Your task to perform on an android device: open sync settings in chrome Image 0: 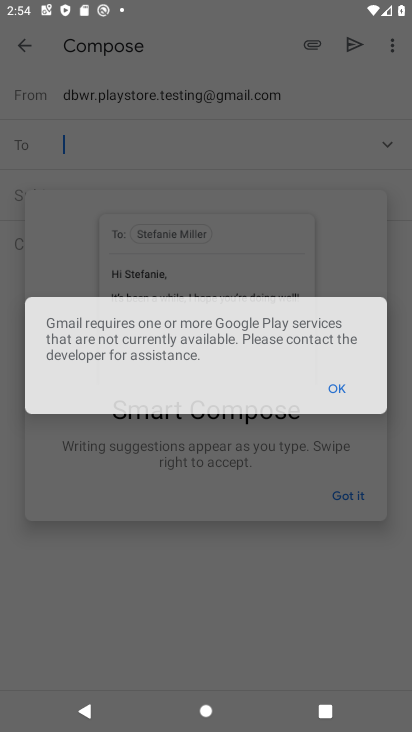
Step 0: drag from (275, 601) to (277, 281)
Your task to perform on an android device: open sync settings in chrome Image 1: 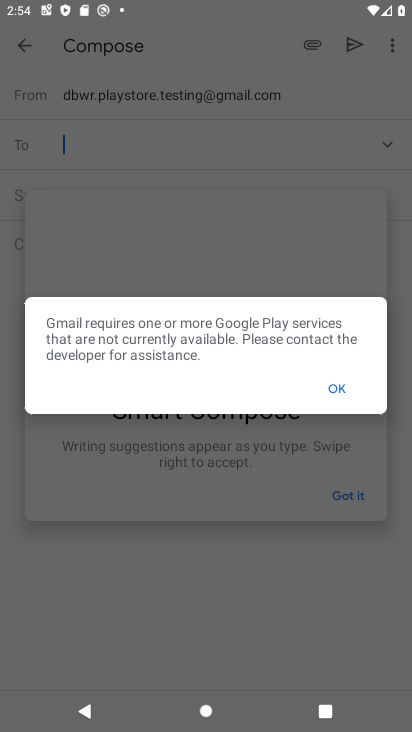
Step 1: press home button
Your task to perform on an android device: open sync settings in chrome Image 2: 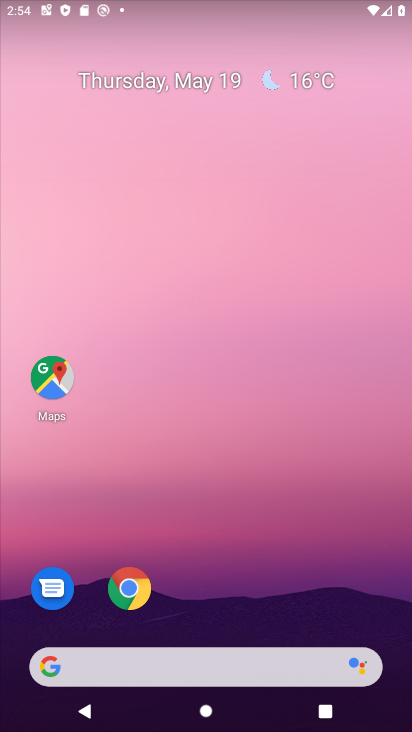
Step 2: click (132, 594)
Your task to perform on an android device: open sync settings in chrome Image 3: 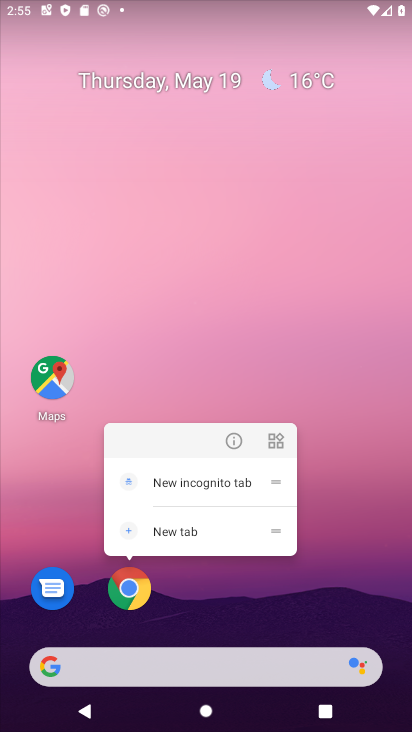
Step 3: click (134, 585)
Your task to perform on an android device: open sync settings in chrome Image 4: 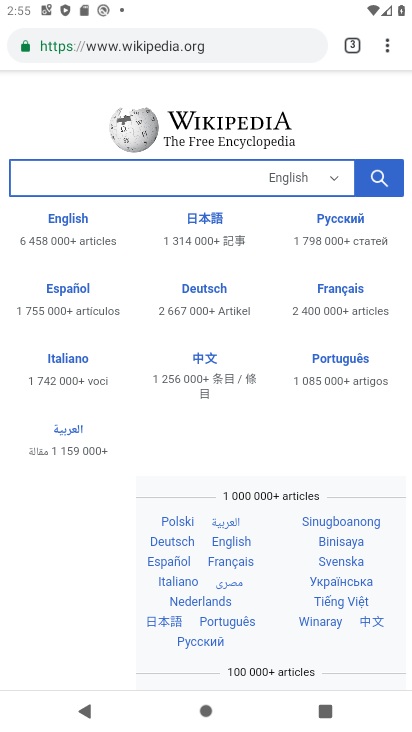
Step 4: drag from (383, 46) to (239, 554)
Your task to perform on an android device: open sync settings in chrome Image 5: 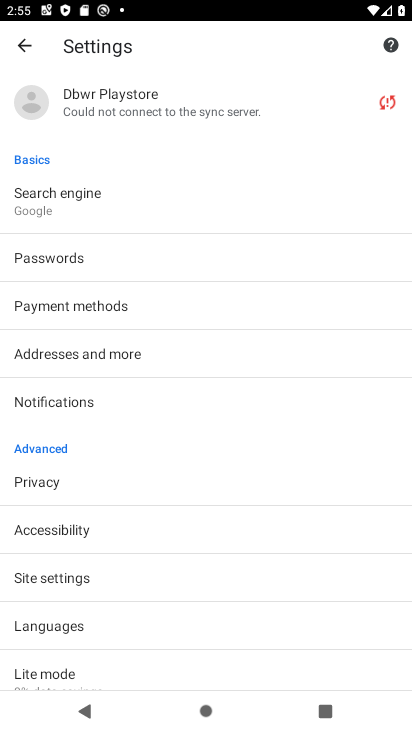
Step 5: click (125, 102)
Your task to perform on an android device: open sync settings in chrome Image 6: 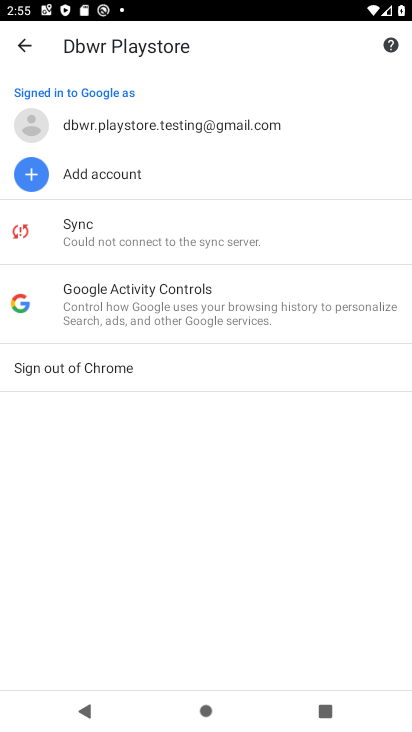
Step 6: click (140, 227)
Your task to perform on an android device: open sync settings in chrome Image 7: 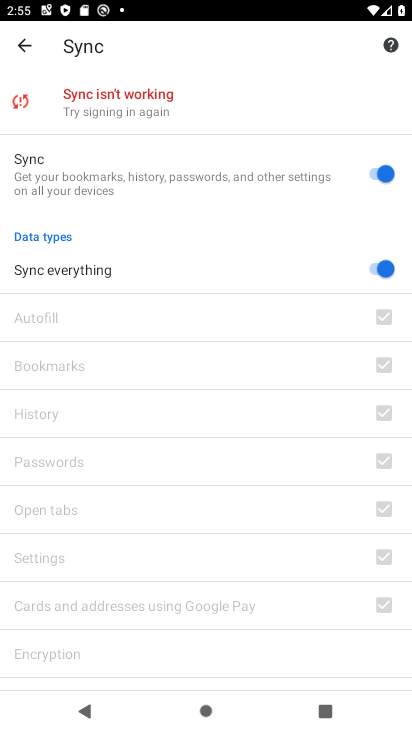
Step 7: task complete